Your task to perform on an android device: Show me recent news Image 0: 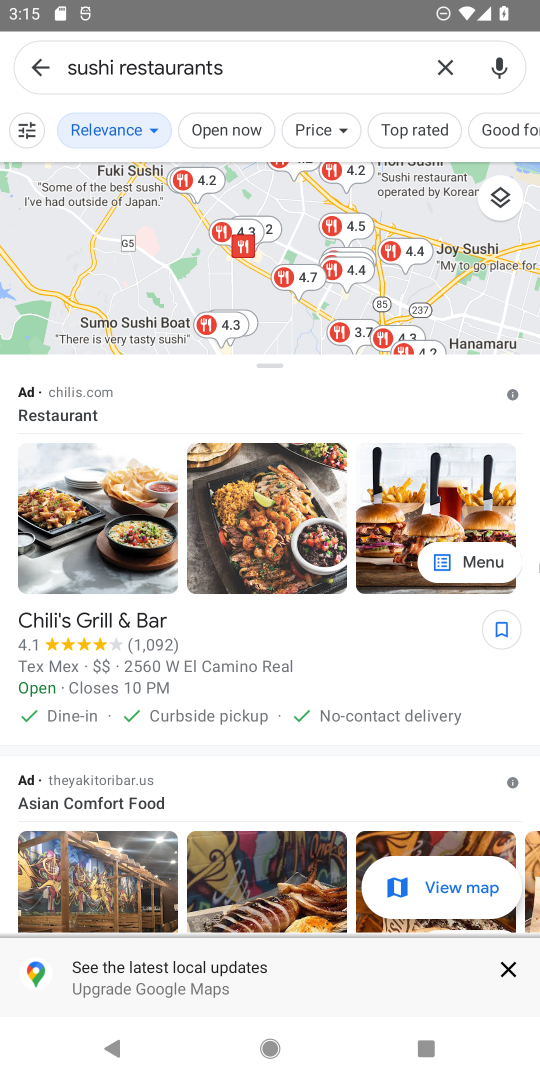
Step 0: press home button
Your task to perform on an android device: Show me recent news Image 1: 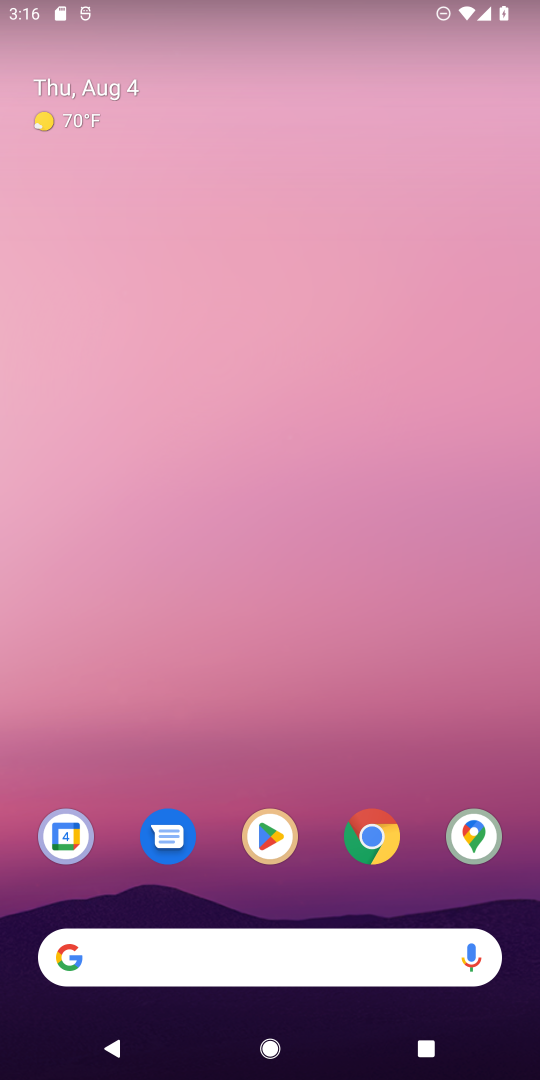
Step 1: drag from (219, 1016) to (320, 743)
Your task to perform on an android device: Show me recent news Image 2: 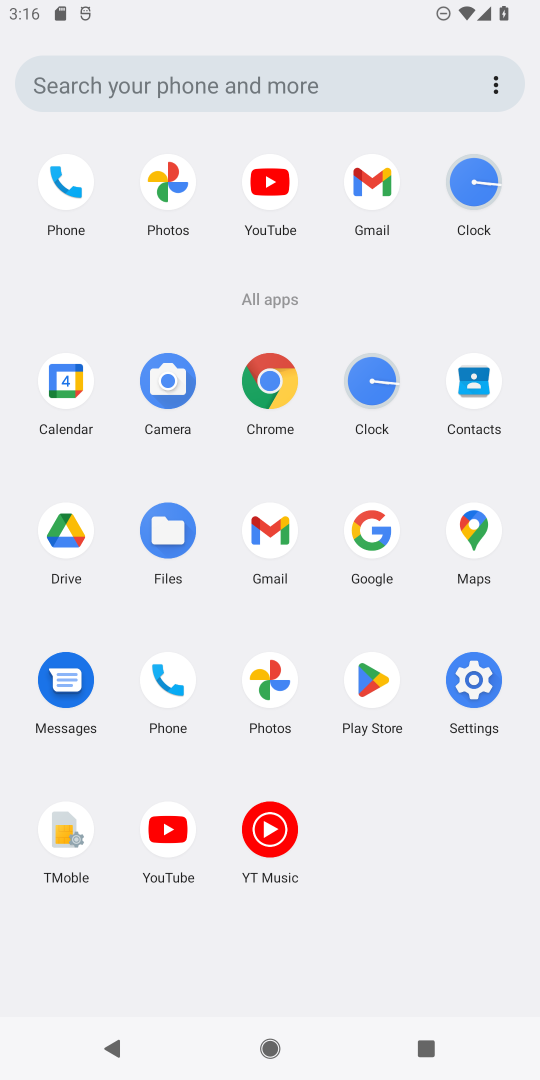
Step 2: click (267, 694)
Your task to perform on an android device: Show me recent news Image 3: 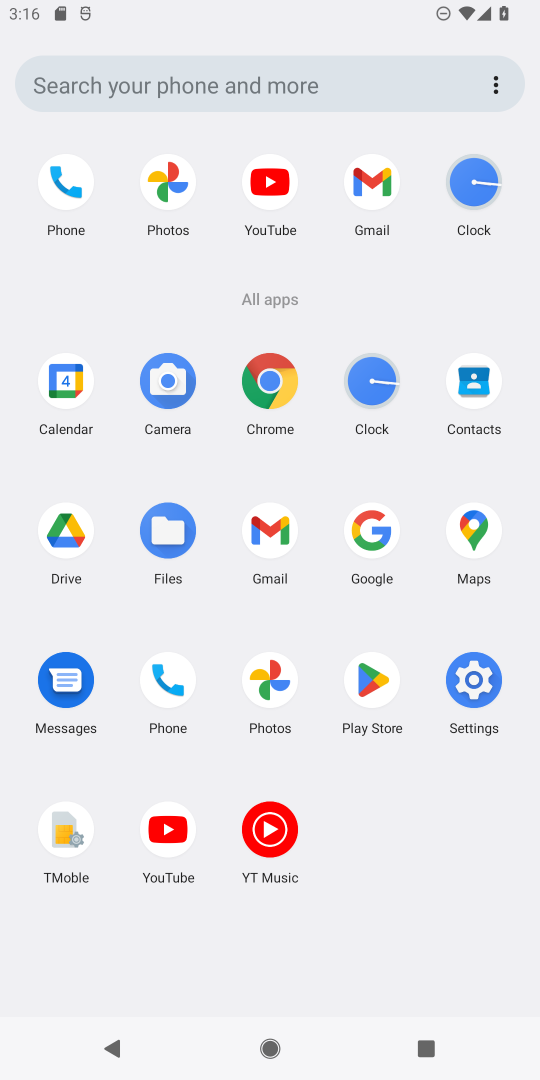
Step 3: click (267, 694)
Your task to perform on an android device: Show me recent news Image 4: 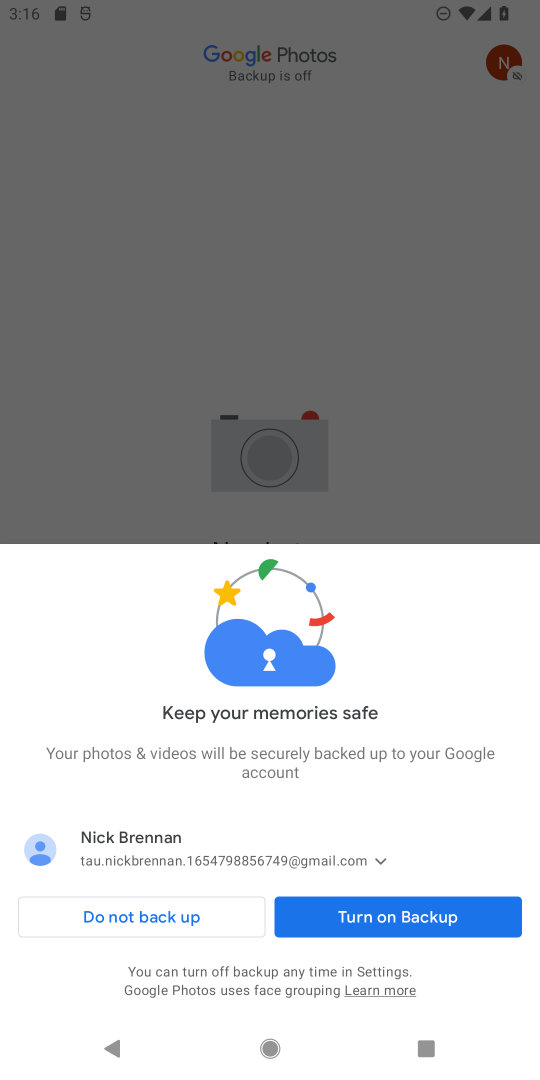
Step 4: click (110, 910)
Your task to perform on an android device: Show me recent news Image 5: 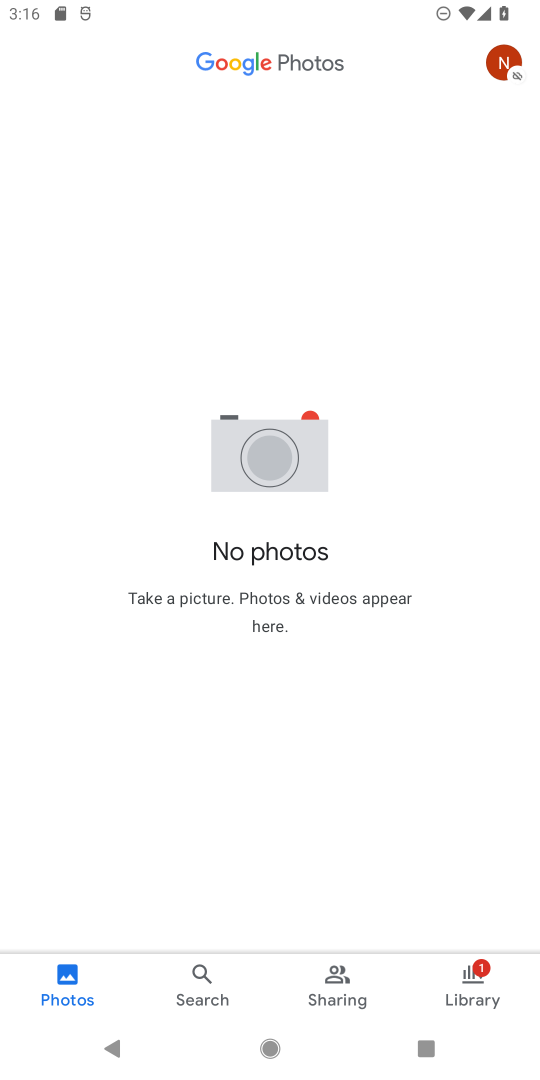
Step 5: click (201, 975)
Your task to perform on an android device: Show me recent news Image 6: 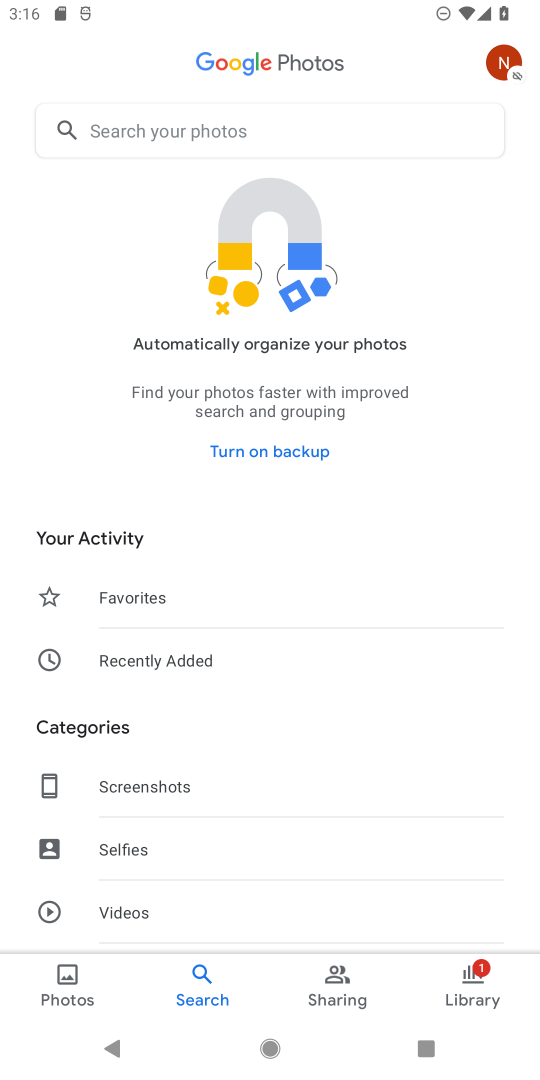
Step 6: click (182, 664)
Your task to perform on an android device: Show me recent news Image 7: 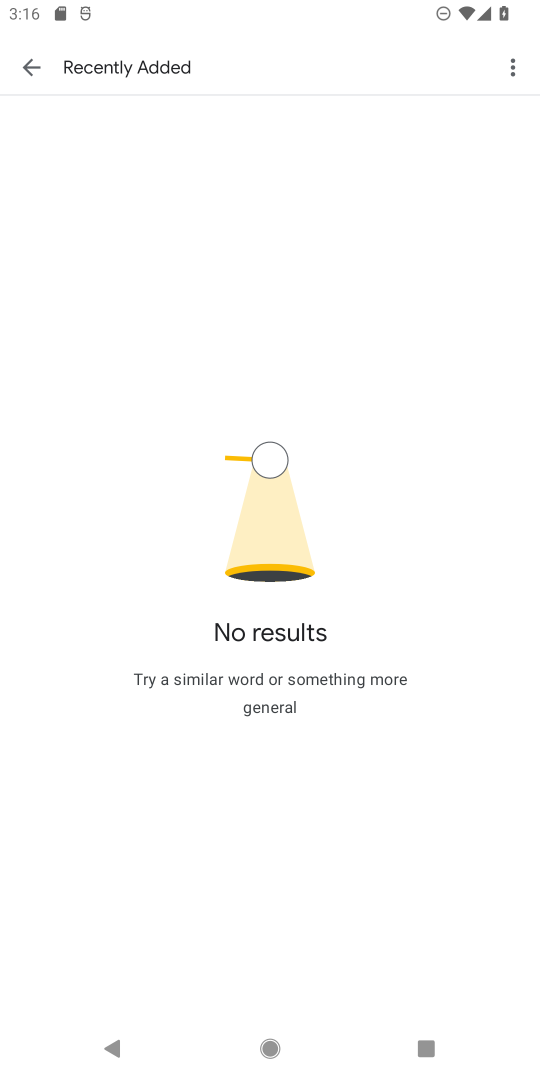
Step 7: task complete